Your task to perform on an android device: Open accessibility settings Image 0: 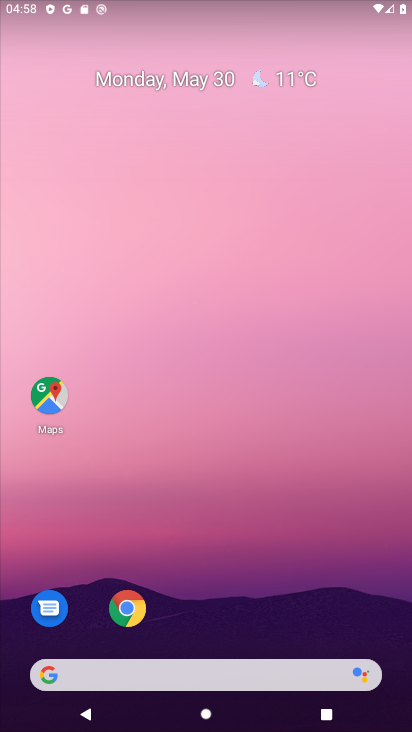
Step 0: drag from (183, 659) to (200, 254)
Your task to perform on an android device: Open accessibility settings Image 1: 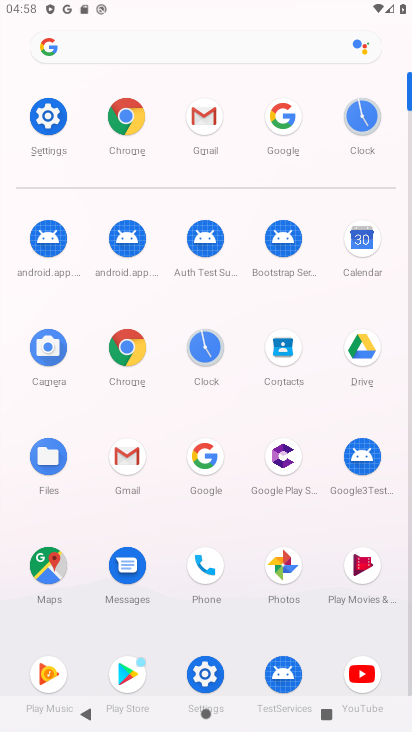
Step 1: click (49, 133)
Your task to perform on an android device: Open accessibility settings Image 2: 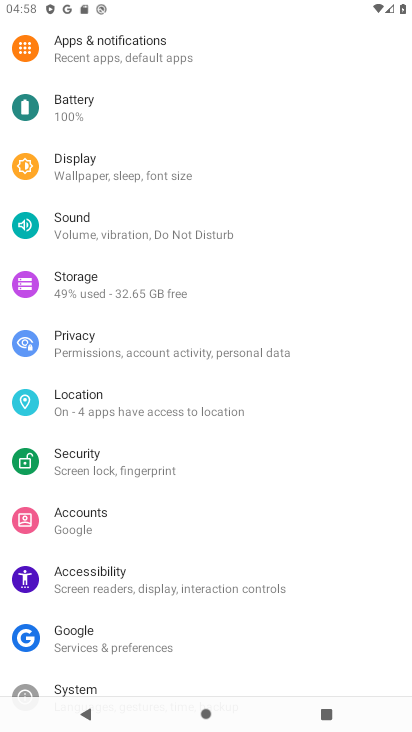
Step 2: click (124, 581)
Your task to perform on an android device: Open accessibility settings Image 3: 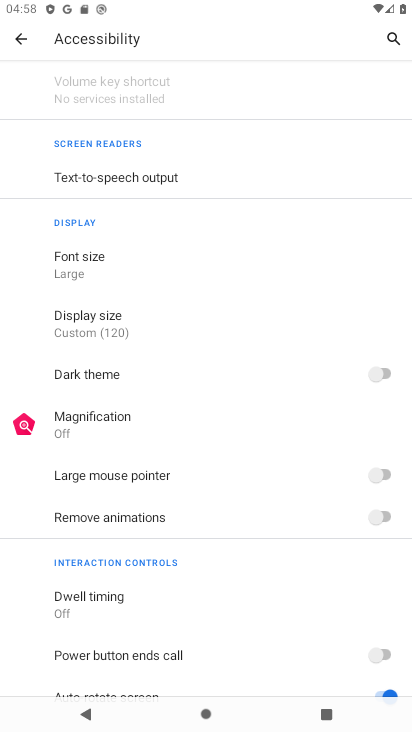
Step 3: task complete